Your task to perform on an android device: Open accessibility settings Image 0: 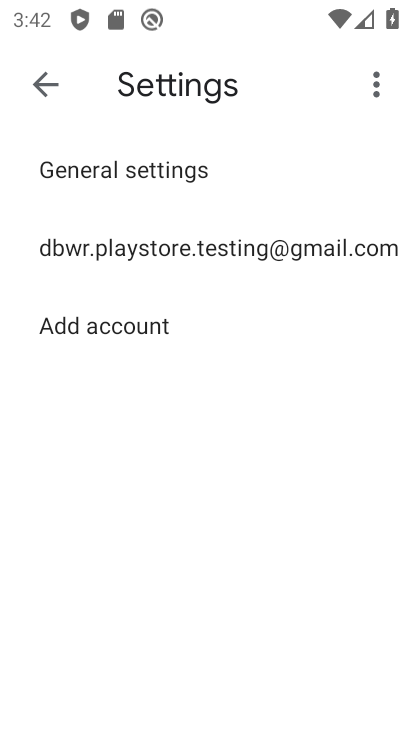
Step 0: press home button
Your task to perform on an android device: Open accessibility settings Image 1: 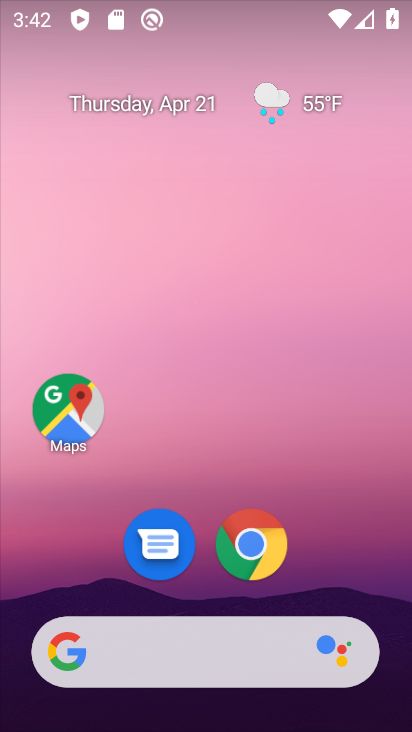
Step 1: drag from (178, 625) to (211, 76)
Your task to perform on an android device: Open accessibility settings Image 2: 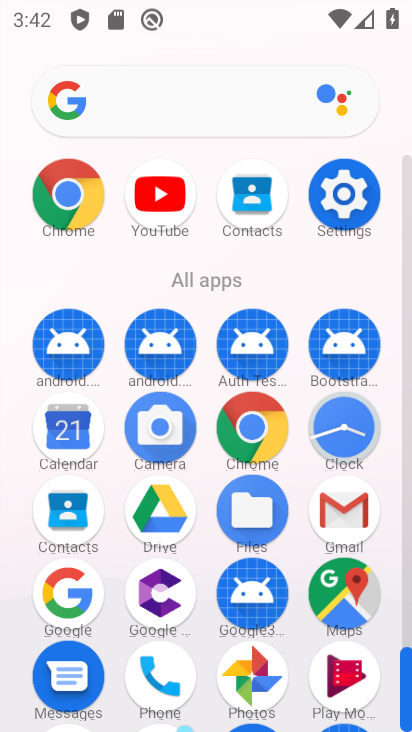
Step 2: click (355, 216)
Your task to perform on an android device: Open accessibility settings Image 3: 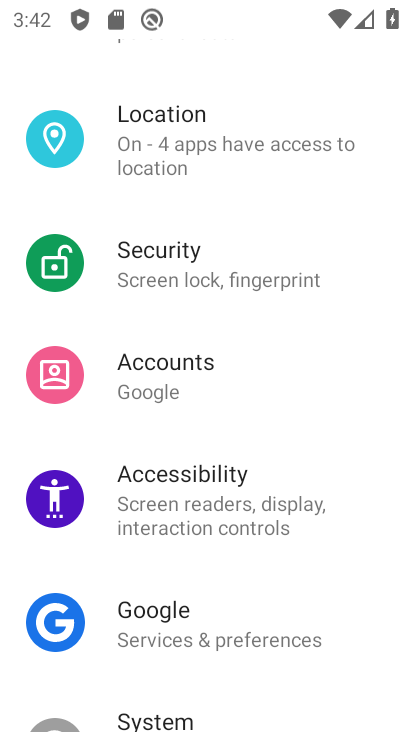
Step 3: click (244, 519)
Your task to perform on an android device: Open accessibility settings Image 4: 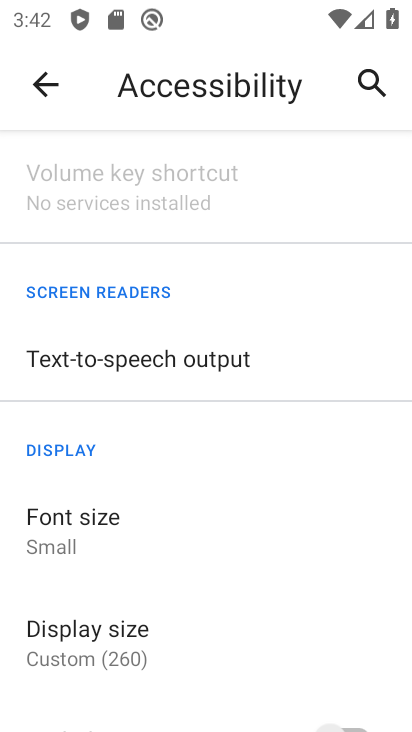
Step 4: task complete